Your task to perform on an android device: What's on my calendar today? Image 0: 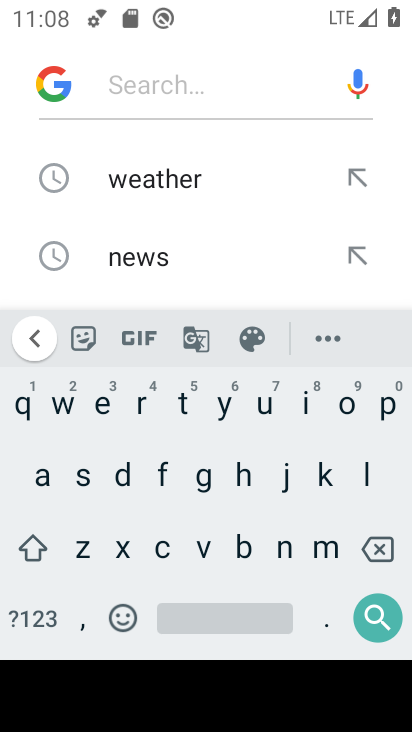
Step 0: press home button
Your task to perform on an android device: What's on my calendar today? Image 1: 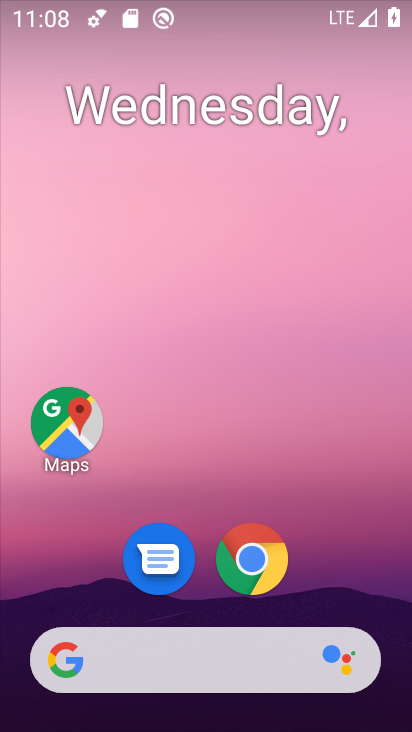
Step 1: drag from (191, 696) to (213, 106)
Your task to perform on an android device: What's on my calendar today? Image 2: 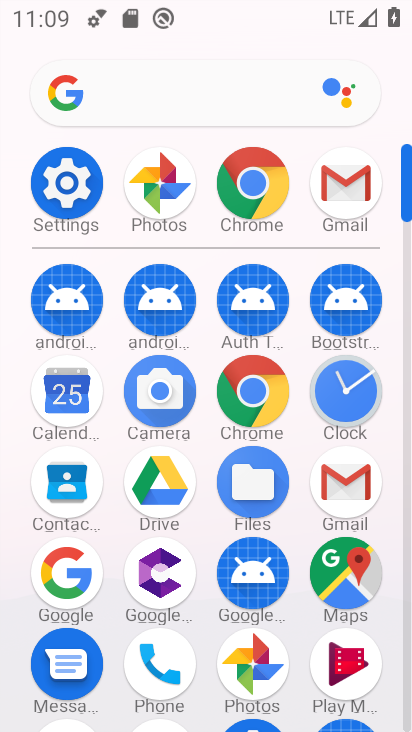
Step 2: click (84, 402)
Your task to perform on an android device: What's on my calendar today? Image 3: 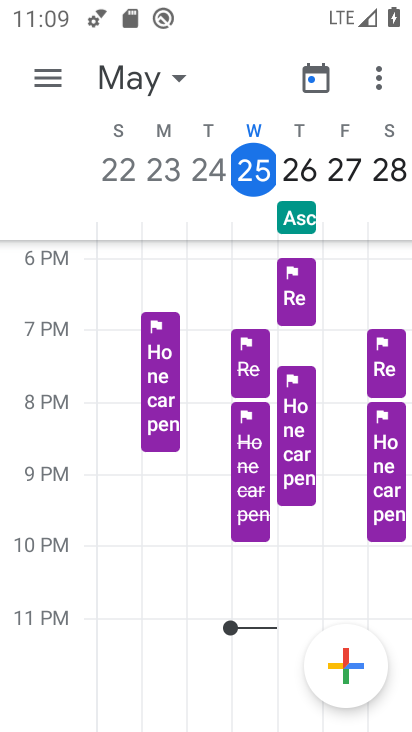
Step 3: click (51, 105)
Your task to perform on an android device: What's on my calendar today? Image 4: 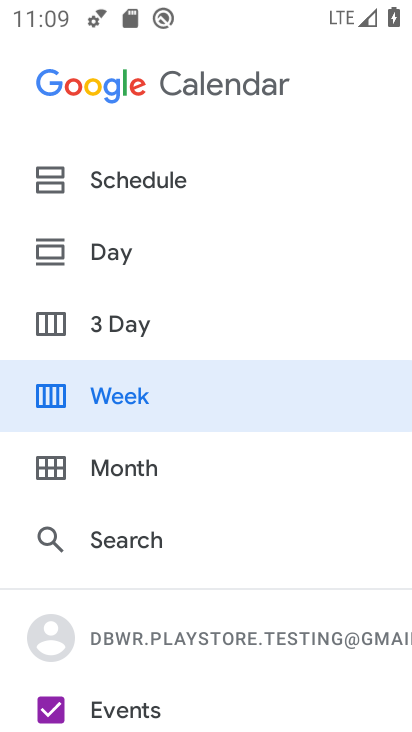
Step 4: click (139, 487)
Your task to perform on an android device: What's on my calendar today? Image 5: 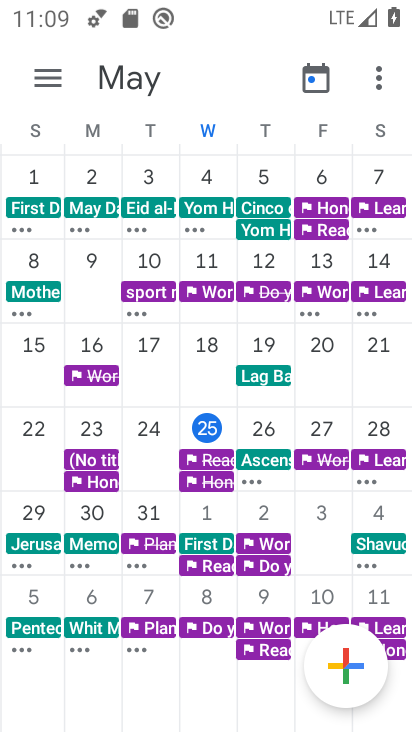
Step 5: click (50, 67)
Your task to perform on an android device: What's on my calendar today? Image 6: 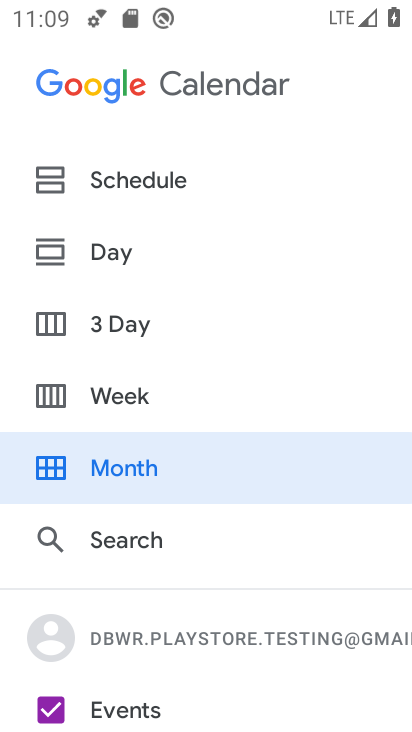
Step 6: click (107, 176)
Your task to perform on an android device: What's on my calendar today? Image 7: 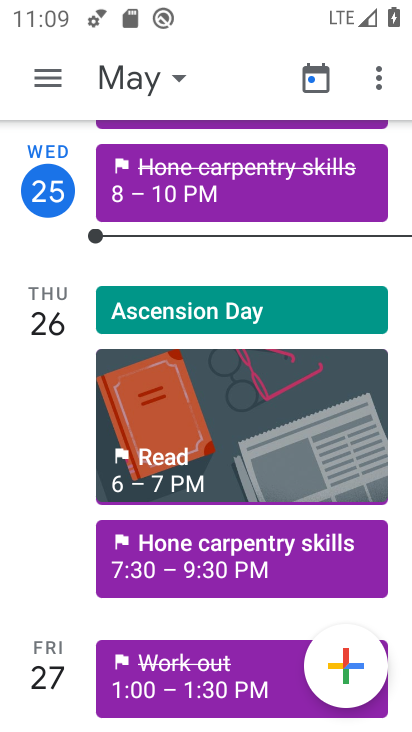
Step 7: task complete